Your task to perform on an android device: Check the news Image 0: 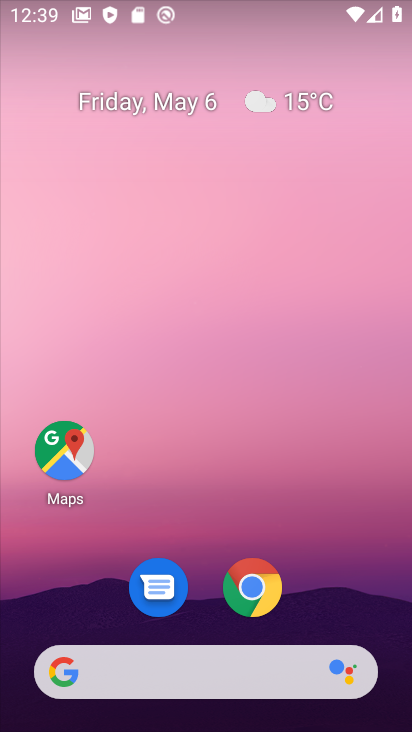
Step 0: drag from (300, 609) to (265, 30)
Your task to perform on an android device: Check the news Image 1: 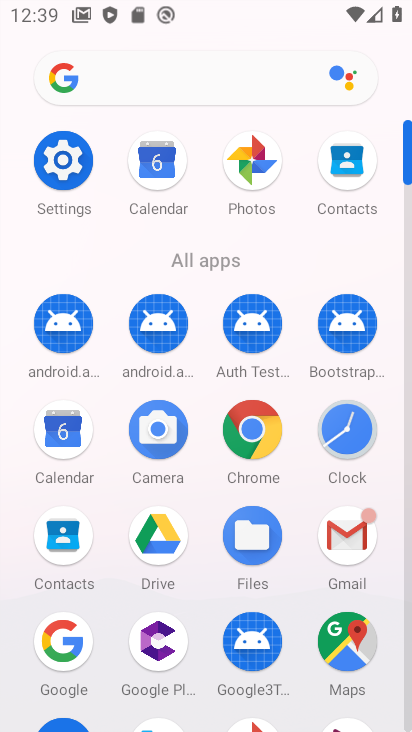
Step 1: click (61, 626)
Your task to perform on an android device: Check the news Image 2: 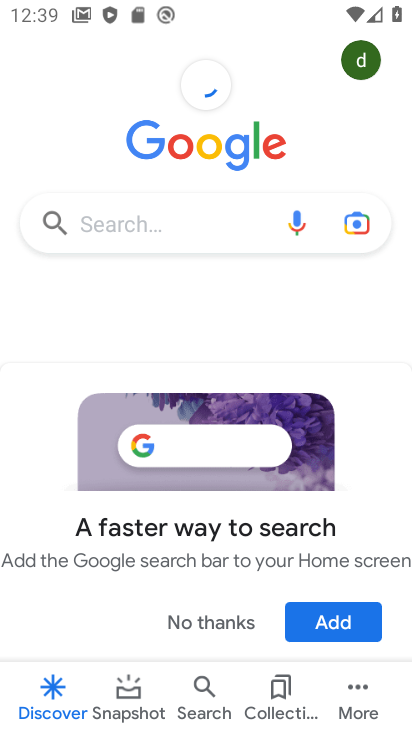
Step 2: click (133, 228)
Your task to perform on an android device: Check the news Image 3: 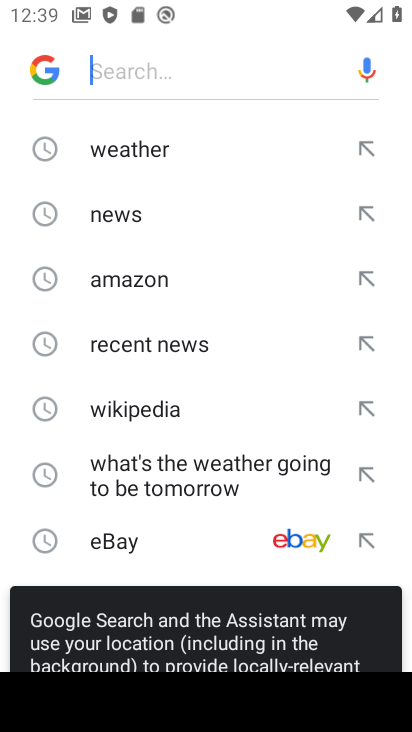
Step 3: click (109, 223)
Your task to perform on an android device: Check the news Image 4: 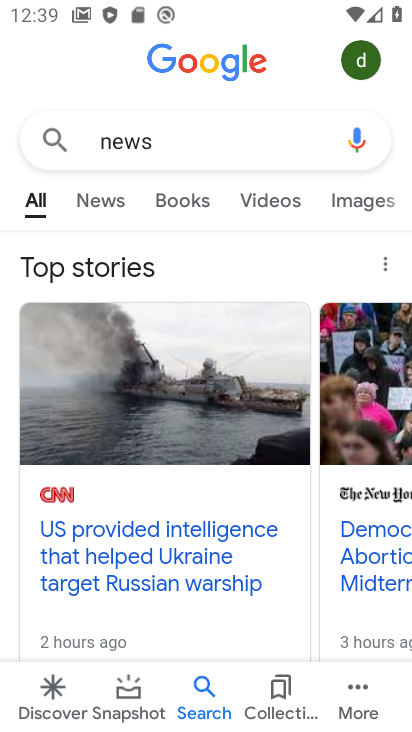
Step 4: task complete